Your task to perform on an android device: Open location settings Image 0: 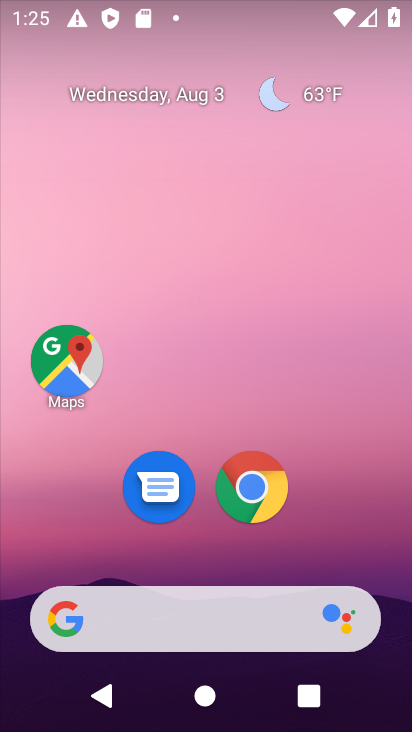
Step 0: drag from (299, 552) to (232, 101)
Your task to perform on an android device: Open location settings Image 1: 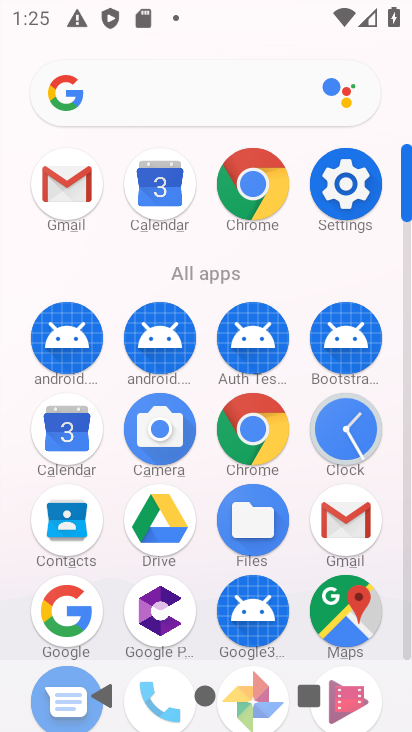
Step 1: click (356, 182)
Your task to perform on an android device: Open location settings Image 2: 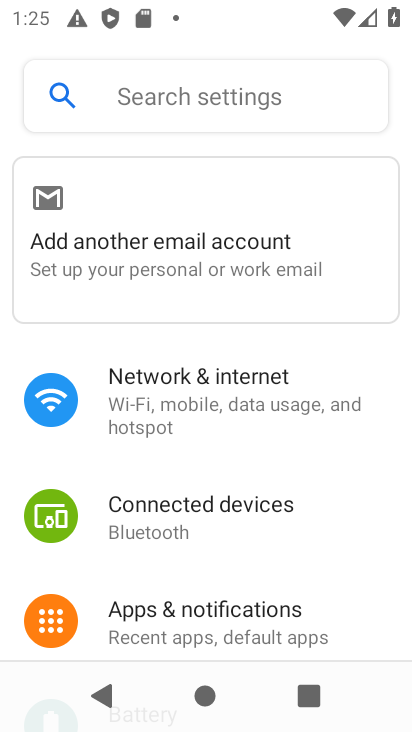
Step 2: drag from (356, 601) to (335, 252)
Your task to perform on an android device: Open location settings Image 3: 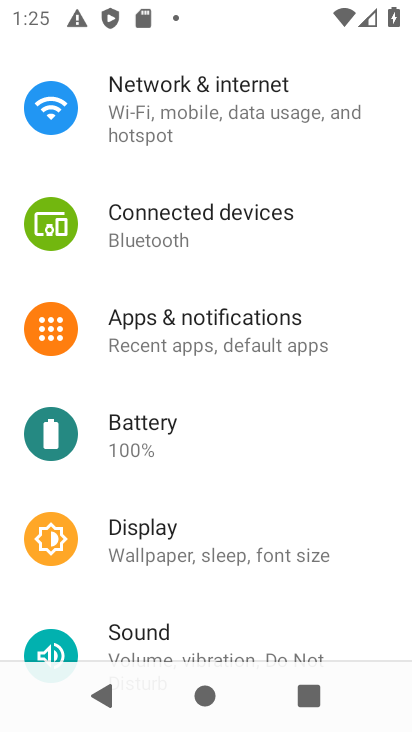
Step 3: drag from (346, 646) to (304, 192)
Your task to perform on an android device: Open location settings Image 4: 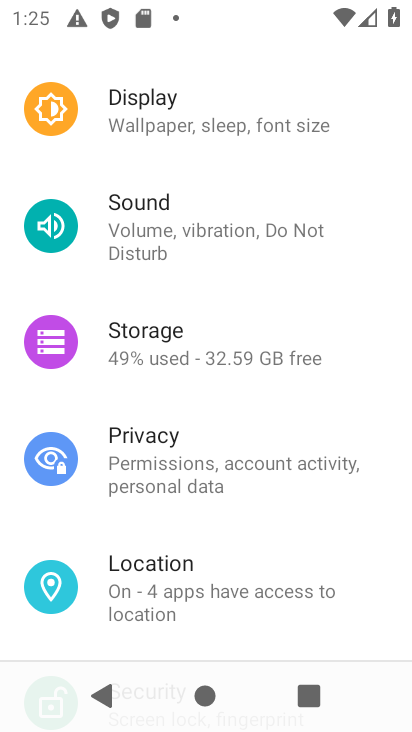
Step 4: click (146, 586)
Your task to perform on an android device: Open location settings Image 5: 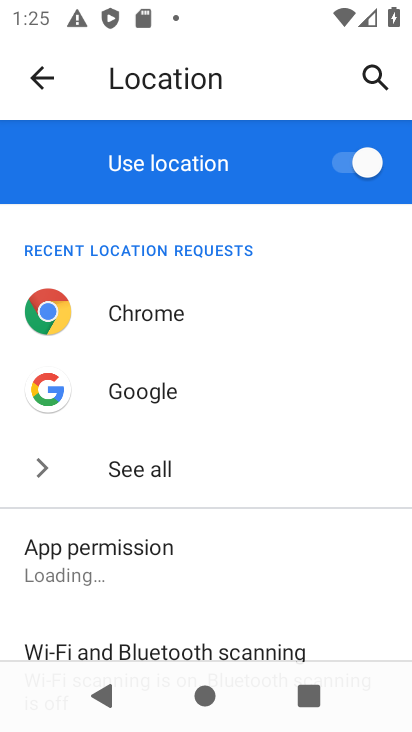
Step 5: task complete